Your task to perform on an android device: open the mobile data screen to see how much data has been used Image 0: 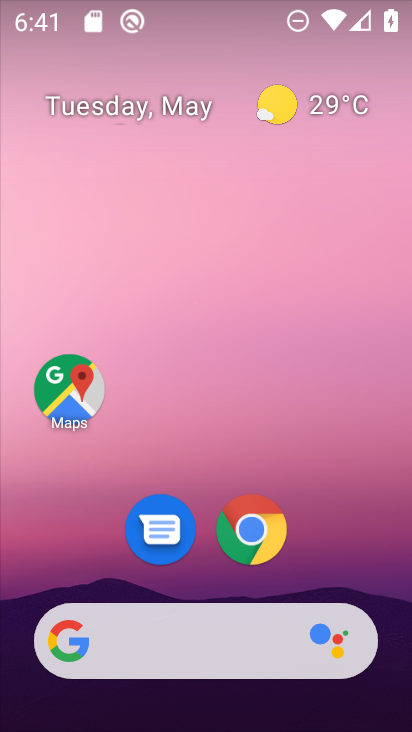
Step 0: drag from (383, 589) to (333, 55)
Your task to perform on an android device: open the mobile data screen to see how much data has been used Image 1: 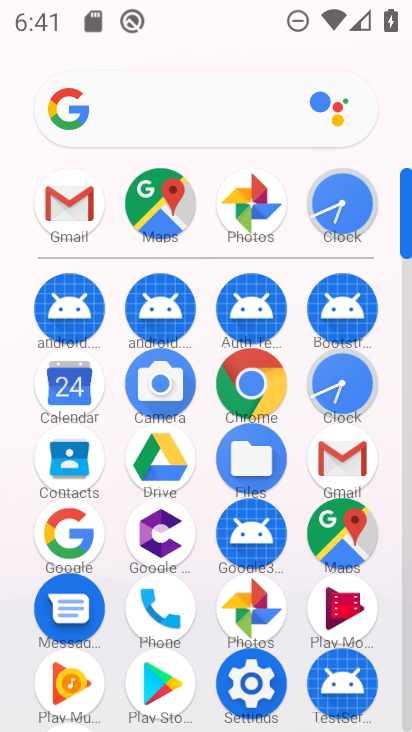
Step 1: click (251, 686)
Your task to perform on an android device: open the mobile data screen to see how much data has been used Image 2: 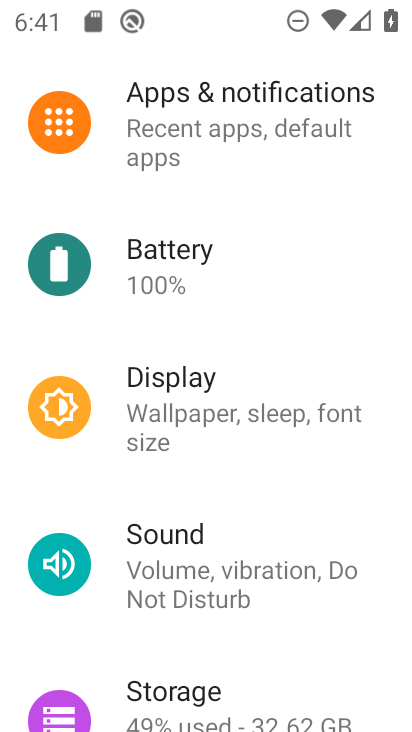
Step 2: drag from (239, 132) to (231, 331)
Your task to perform on an android device: open the mobile data screen to see how much data has been used Image 3: 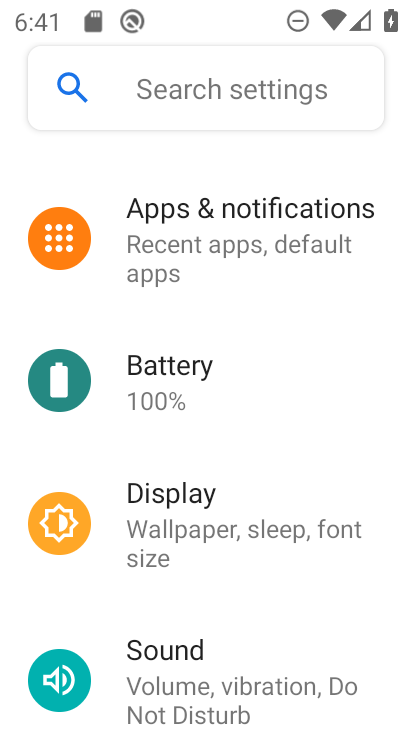
Step 3: drag from (234, 249) to (276, 557)
Your task to perform on an android device: open the mobile data screen to see how much data has been used Image 4: 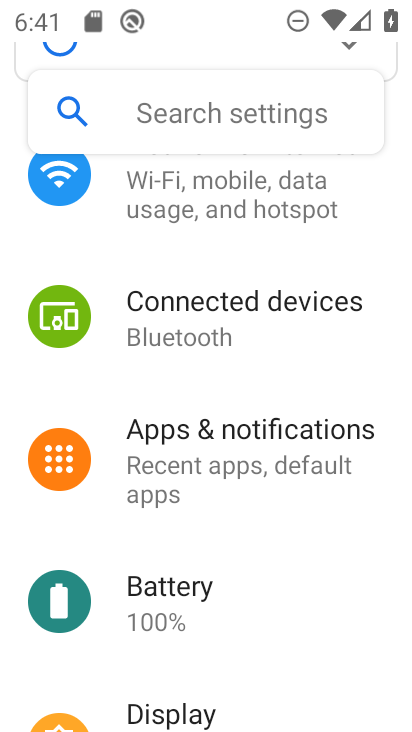
Step 4: click (207, 204)
Your task to perform on an android device: open the mobile data screen to see how much data has been used Image 5: 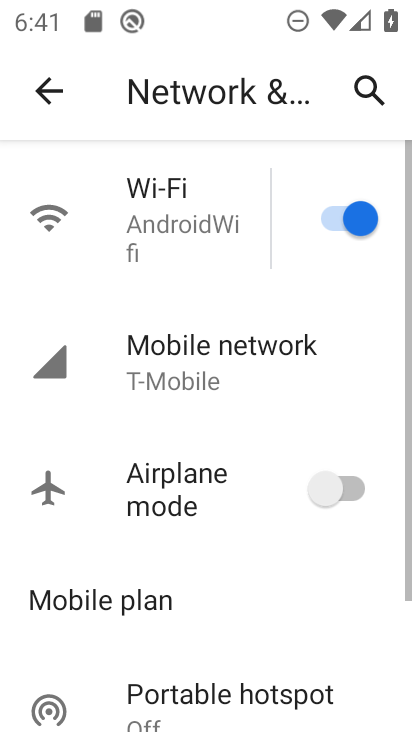
Step 5: click (138, 368)
Your task to perform on an android device: open the mobile data screen to see how much data has been used Image 6: 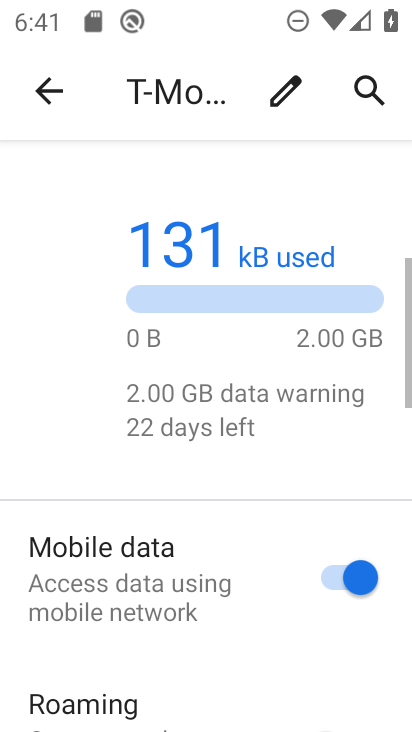
Step 6: drag from (139, 678) to (180, 271)
Your task to perform on an android device: open the mobile data screen to see how much data has been used Image 7: 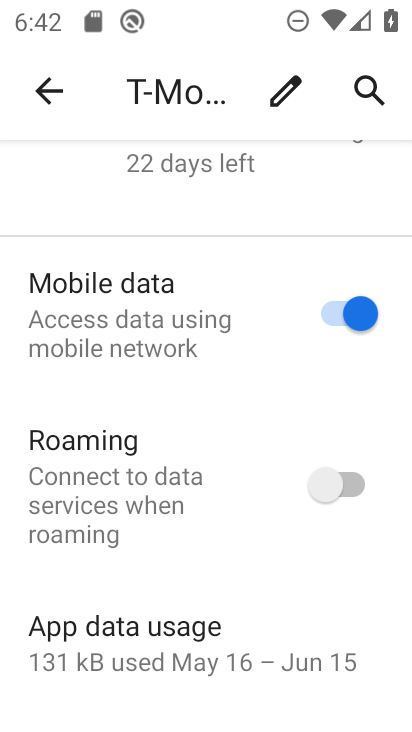
Step 7: click (184, 646)
Your task to perform on an android device: open the mobile data screen to see how much data has been used Image 8: 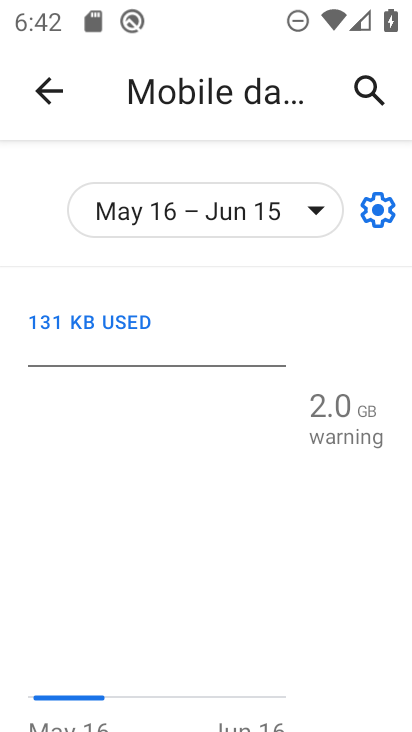
Step 8: task complete